Your task to perform on an android device: turn on location history Image 0: 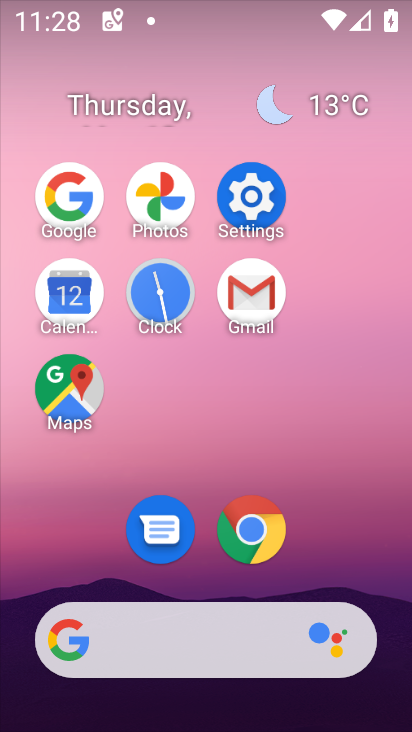
Step 0: click (264, 213)
Your task to perform on an android device: turn on location history Image 1: 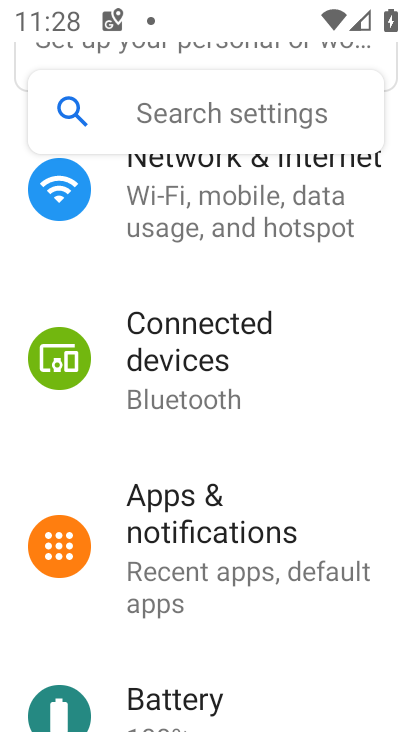
Step 1: drag from (254, 672) to (312, 237)
Your task to perform on an android device: turn on location history Image 2: 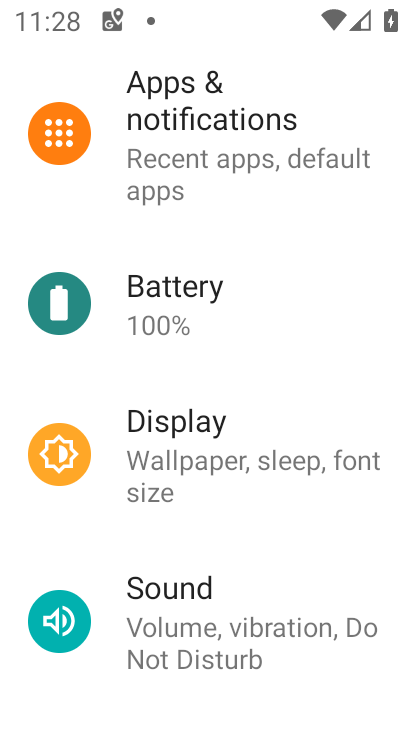
Step 2: drag from (276, 606) to (321, 246)
Your task to perform on an android device: turn on location history Image 3: 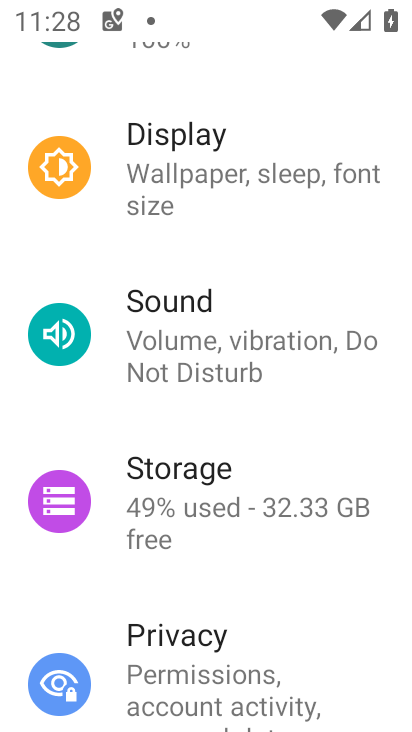
Step 3: drag from (285, 610) to (318, 298)
Your task to perform on an android device: turn on location history Image 4: 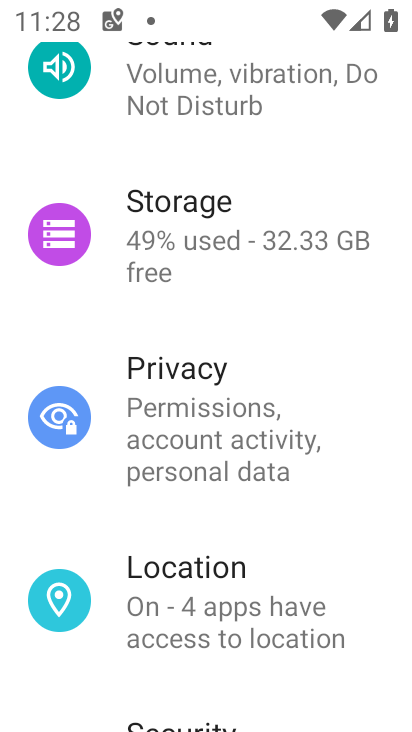
Step 4: click (279, 616)
Your task to perform on an android device: turn on location history Image 5: 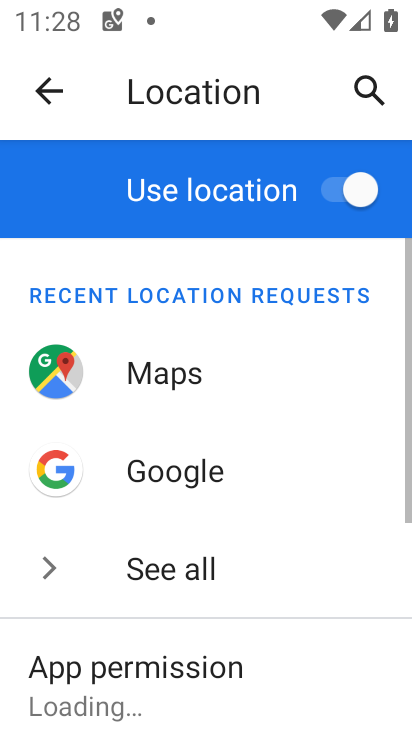
Step 5: drag from (279, 616) to (315, 290)
Your task to perform on an android device: turn on location history Image 6: 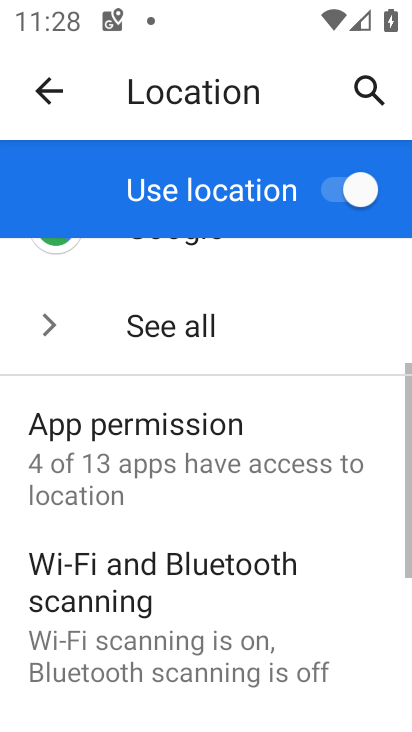
Step 6: drag from (297, 636) to (300, 276)
Your task to perform on an android device: turn on location history Image 7: 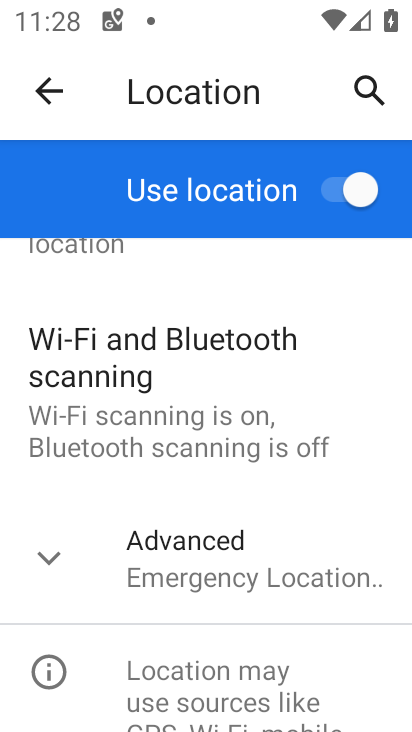
Step 7: click (266, 565)
Your task to perform on an android device: turn on location history Image 8: 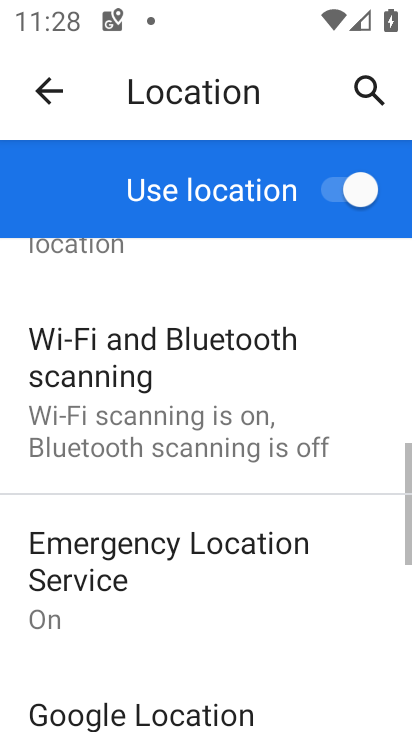
Step 8: drag from (283, 662) to (323, 344)
Your task to perform on an android device: turn on location history Image 9: 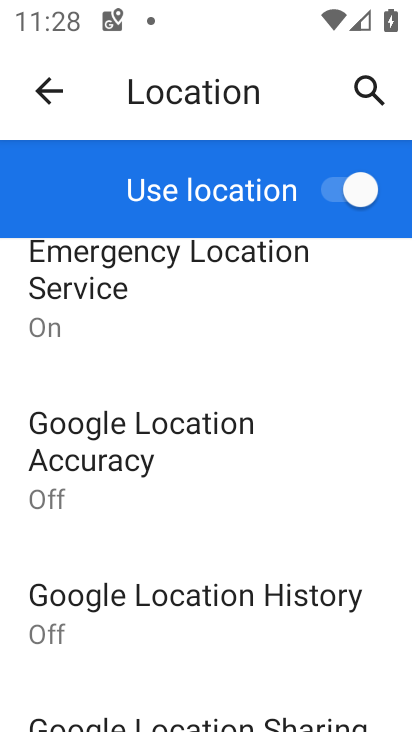
Step 9: click (267, 599)
Your task to perform on an android device: turn on location history Image 10: 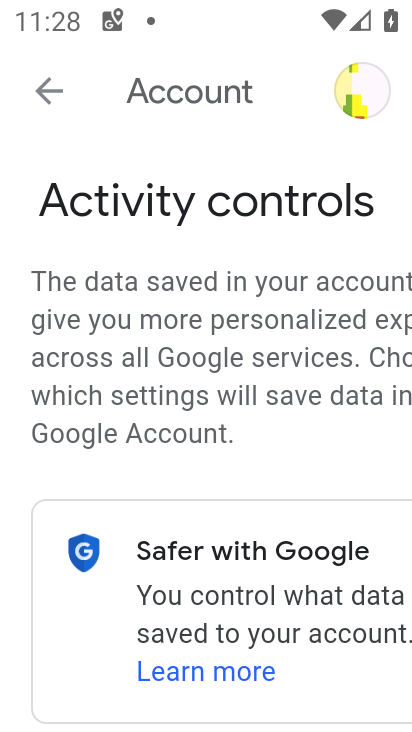
Step 10: drag from (342, 624) to (370, 36)
Your task to perform on an android device: turn on location history Image 11: 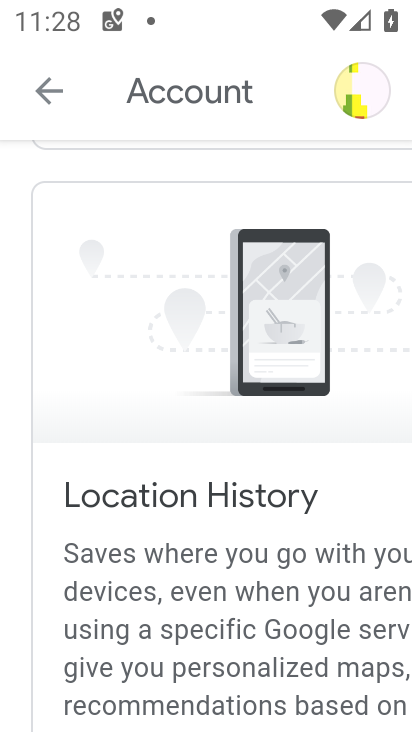
Step 11: drag from (306, 619) to (301, 136)
Your task to perform on an android device: turn on location history Image 12: 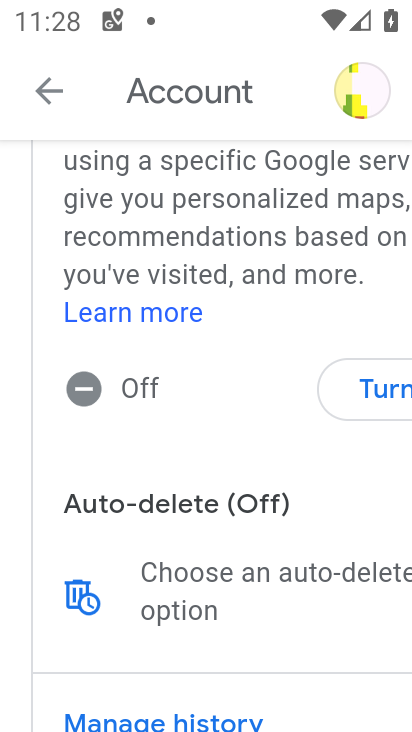
Step 12: click (375, 380)
Your task to perform on an android device: turn on location history Image 13: 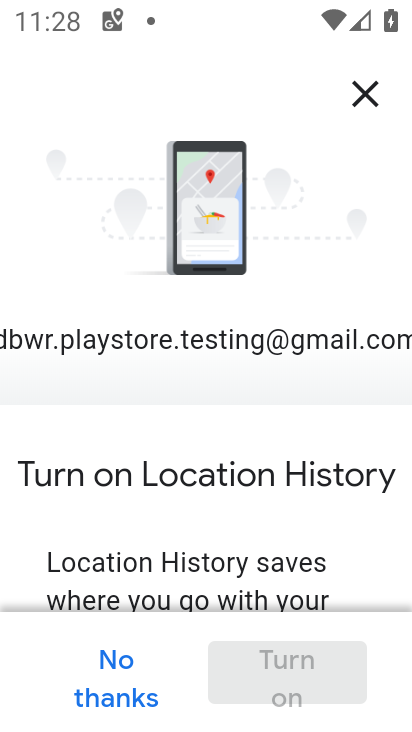
Step 13: drag from (315, 591) to (343, 135)
Your task to perform on an android device: turn on location history Image 14: 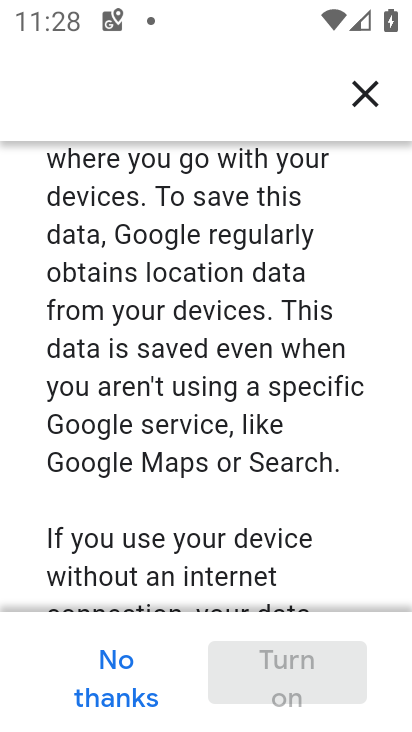
Step 14: drag from (281, 538) to (293, 139)
Your task to perform on an android device: turn on location history Image 15: 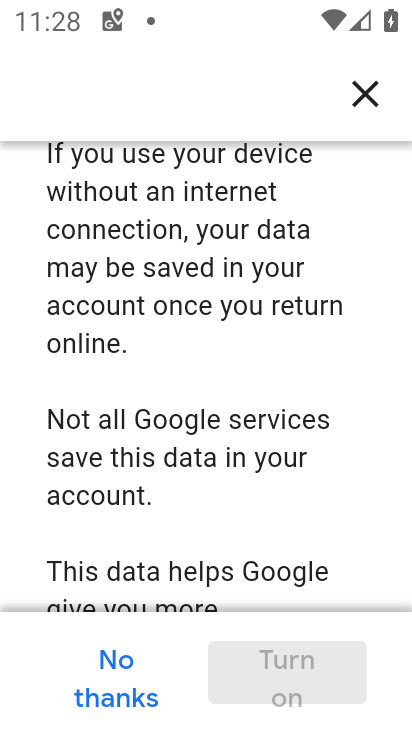
Step 15: drag from (265, 544) to (302, 123)
Your task to perform on an android device: turn on location history Image 16: 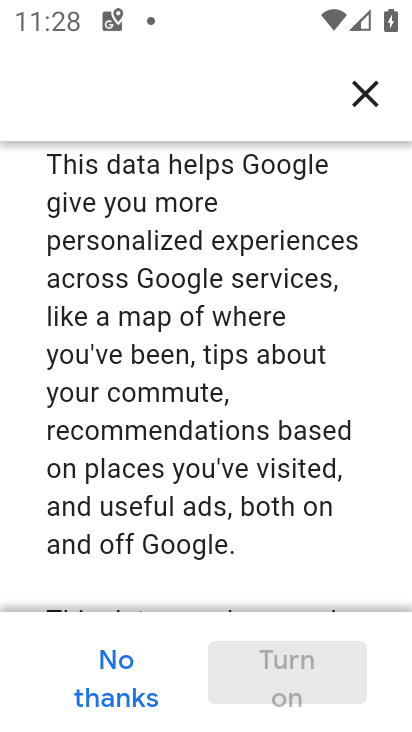
Step 16: drag from (246, 560) to (263, 181)
Your task to perform on an android device: turn on location history Image 17: 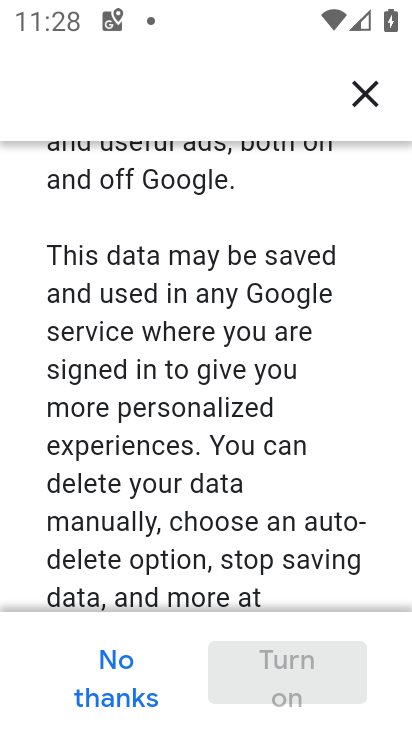
Step 17: drag from (263, 586) to (277, 243)
Your task to perform on an android device: turn on location history Image 18: 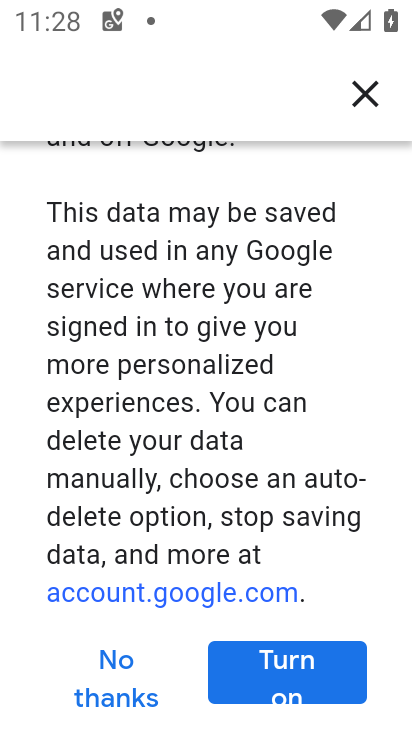
Step 18: click (271, 682)
Your task to perform on an android device: turn on location history Image 19: 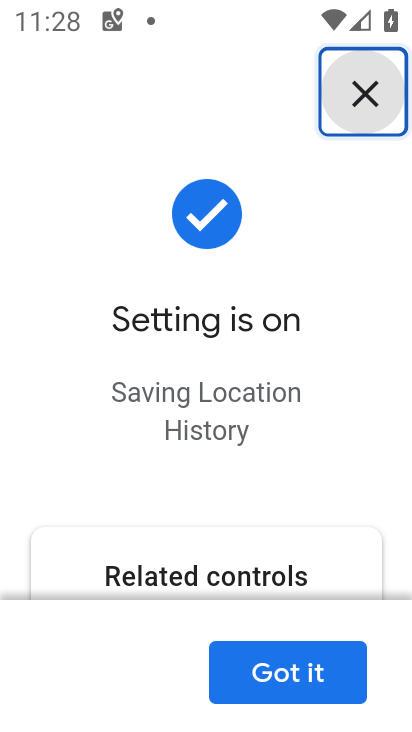
Step 19: click (271, 682)
Your task to perform on an android device: turn on location history Image 20: 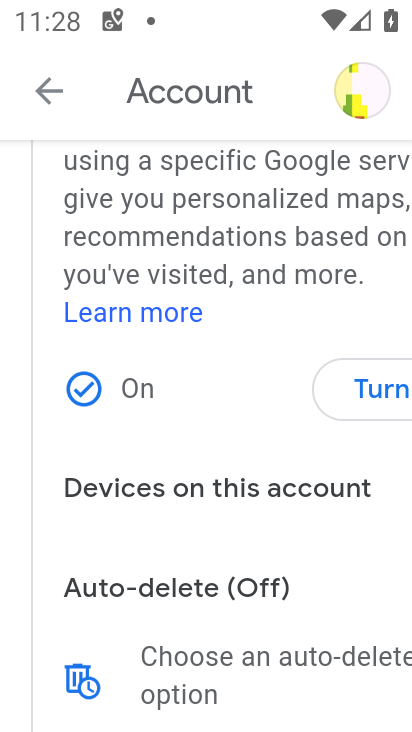
Step 20: task complete